Your task to perform on an android device: Go to eBay Image 0: 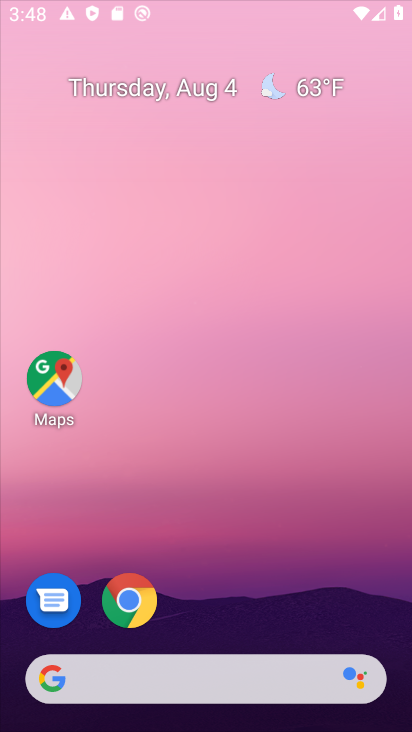
Step 0: click (301, 44)
Your task to perform on an android device: Go to eBay Image 1: 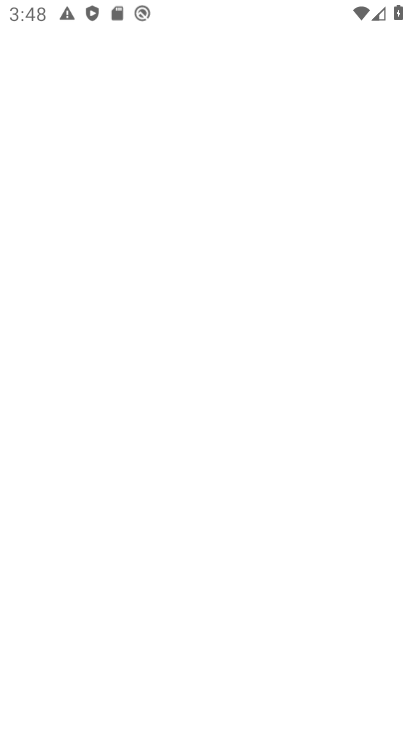
Step 1: press home button
Your task to perform on an android device: Go to eBay Image 2: 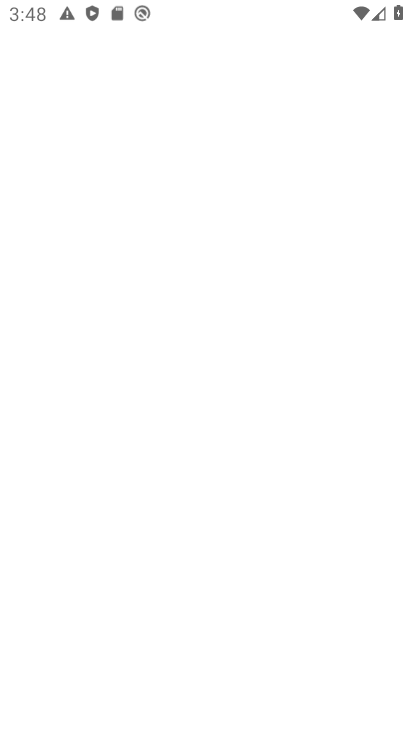
Step 2: press home button
Your task to perform on an android device: Go to eBay Image 3: 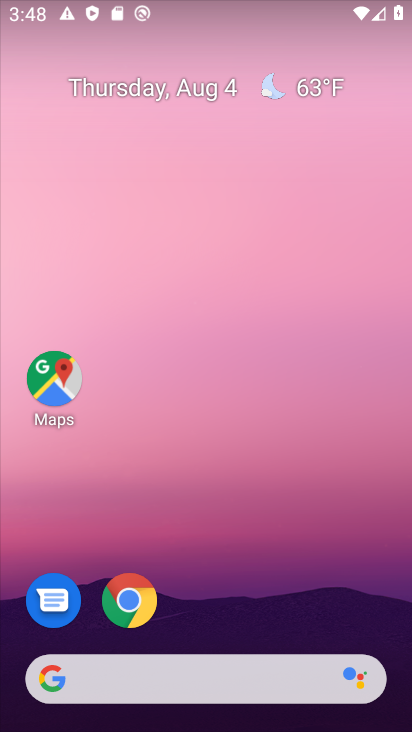
Step 3: click (305, 82)
Your task to perform on an android device: Go to eBay Image 4: 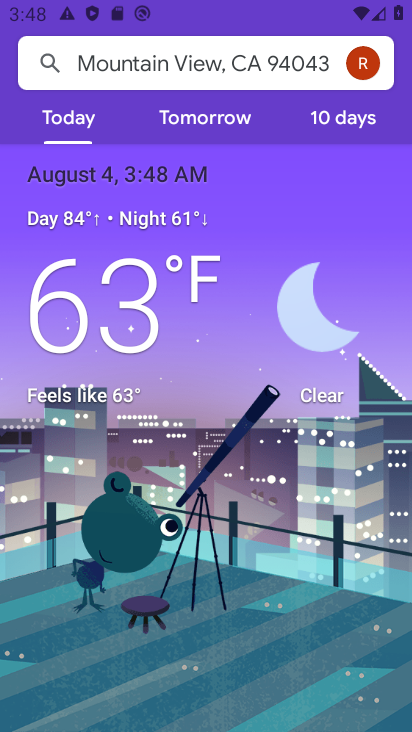
Step 4: press home button
Your task to perform on an android device: Go to eBay Image 5: 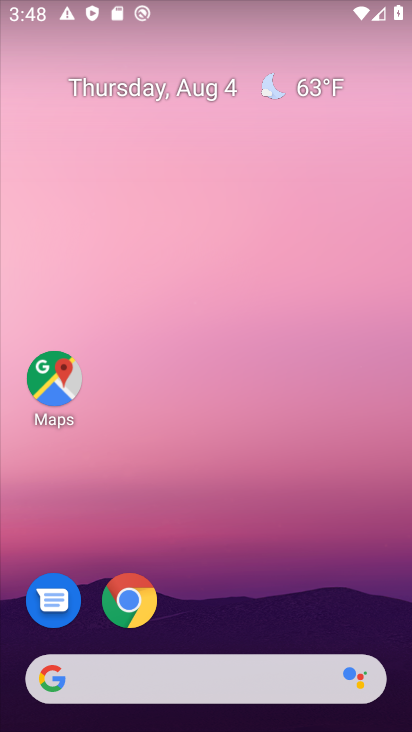
Step 5: drag from (253, 458) to (257, 84)
Your task to perform on an android device: Go to eBay Image 6: 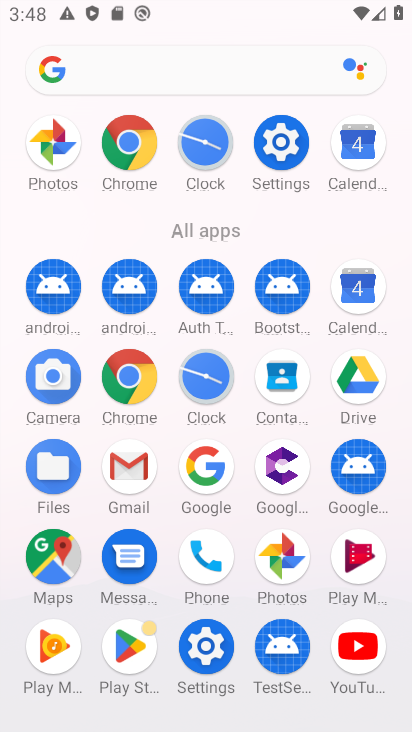
Step 6: click (128, 377)
Your task to perform on an android device: Go to eBay Image 7: 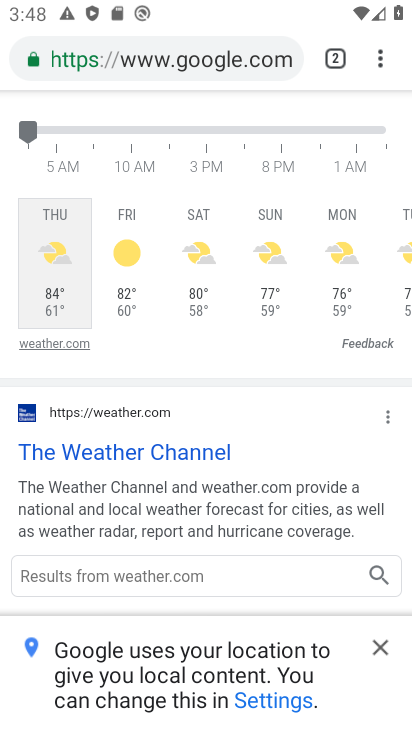
Step 7: click (238, 52)
Your task to perform on an android device: Go to eBay Image 8: 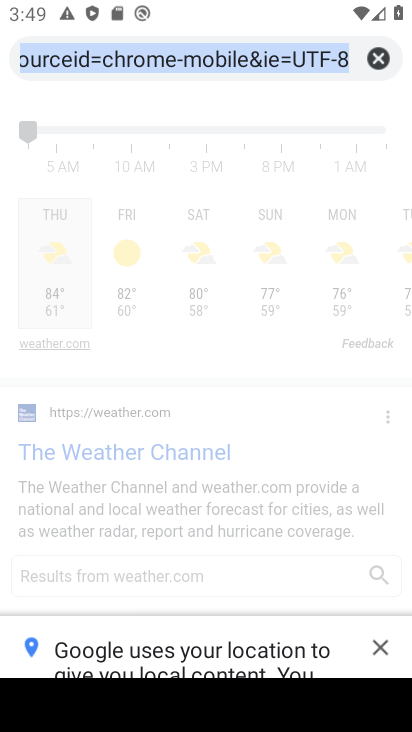
Step 8: type "ebay"
Your task to perform on an android device: Go to eBay Image 9: 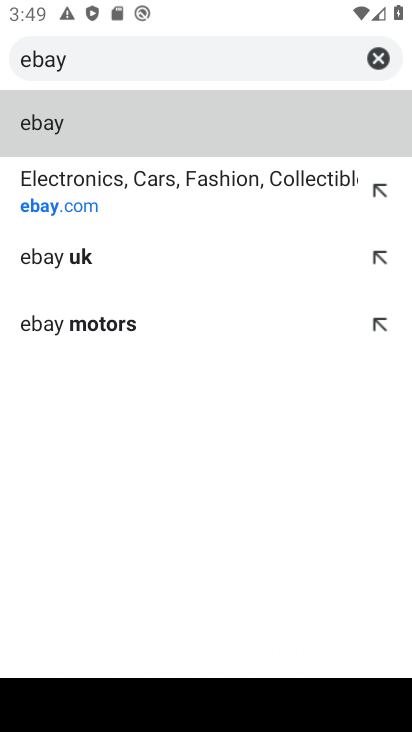
Step 9: click (52, 204)
Your task to perform on an android device: Go to eBay Image 10: 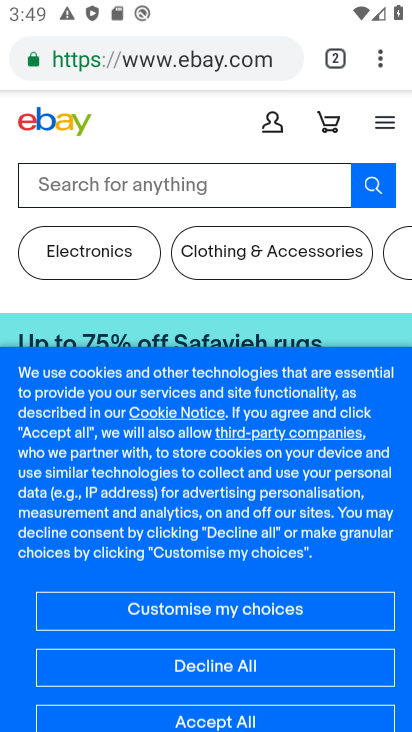
Step 10: task complete